Your task to perform on an android device: turn pop-ups on in chrome Image 0: 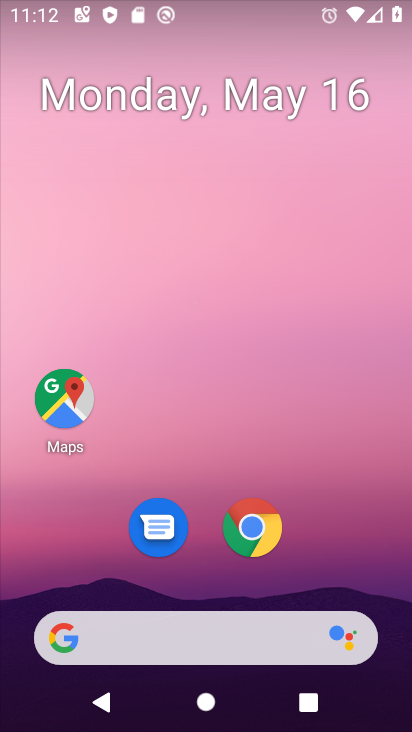
Step 0: click (258, 543)
Your task to perform on an android device: turn pop-ups on in chrome Image 1: 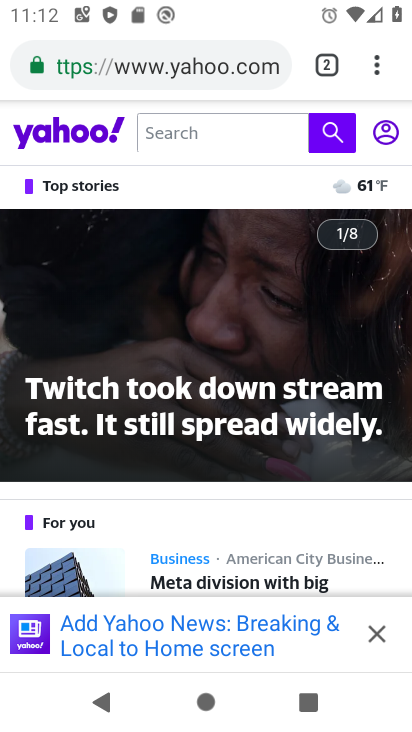
Step 1: click (376, 63)
Your task to perform on an android device: turn pop-ups on in chrome Image 2: 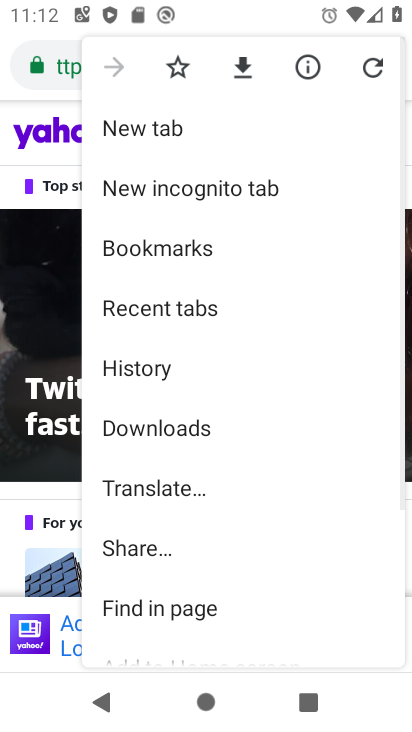
Step 2: drag from (298, 551) to (242, 161)
Your task to perform on an android device: turn pop-ups on in chrome Image 3: 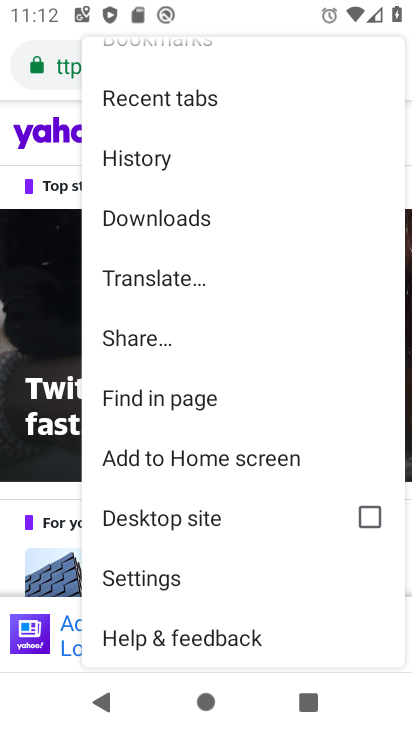
Step 3: click (159, 583)
Your task to perform on an android device: turn pop-ups on in chrome Image 4: 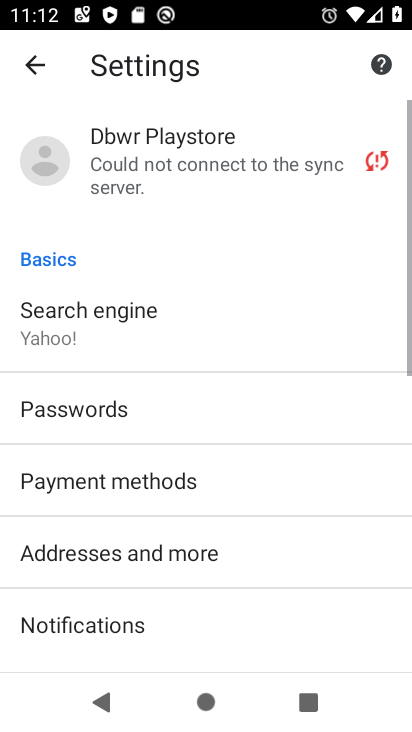
Step 4: drag from (263, 567) to (211, 146)
Your task to perform on an android device: turn pop-ups on in chrome Image 5: 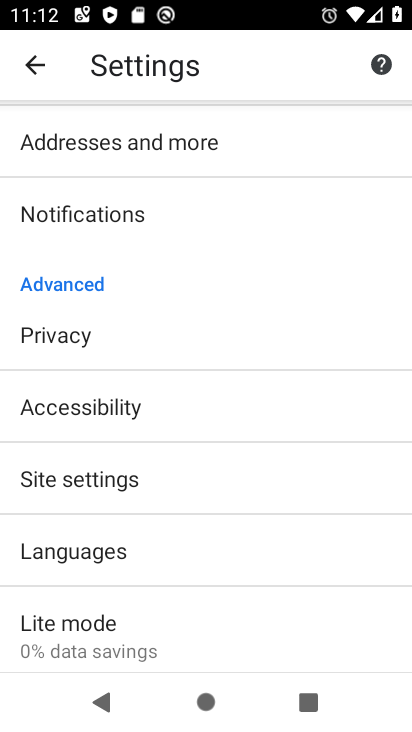
Step 5: click (118, 484)
Your task to perform on an android device: turn pop-ups on in chrome Image 6: 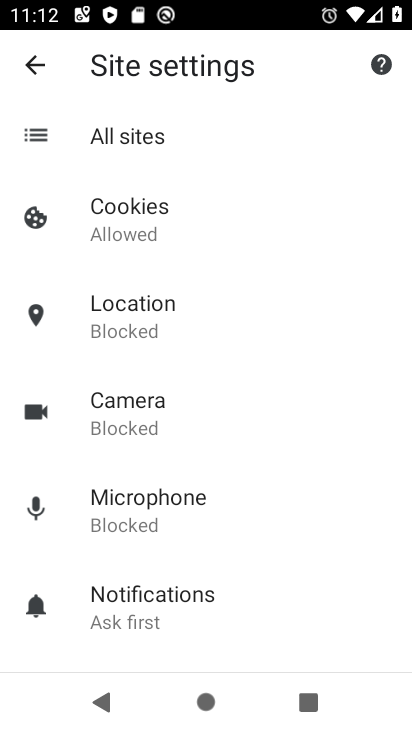
Step 6: drag from (222, 581) to (218, 206)
Your task to perform on an android device: turn pop-ups on in chrome Image 7: 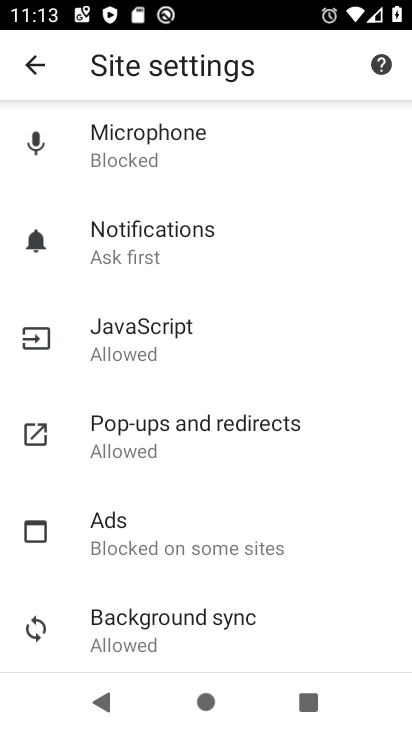
Step 7: click (136, 434)
Your task to perform on an android device: turn pop-ups on in chrome Image 8: 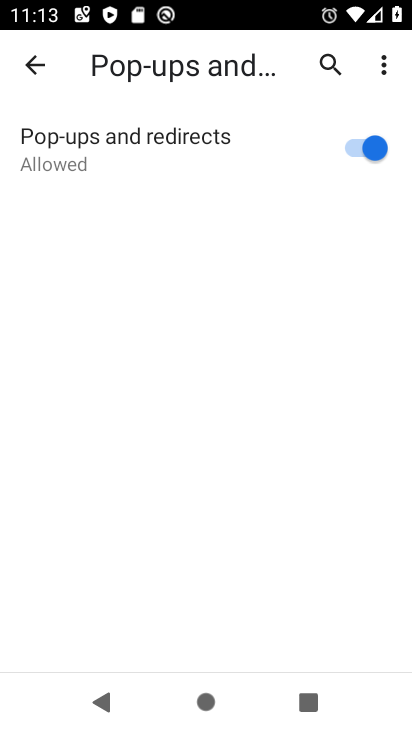
Step 8: task complete